Your task to perform on an android device: see tabs open on other devices in the chrome app Image 0: 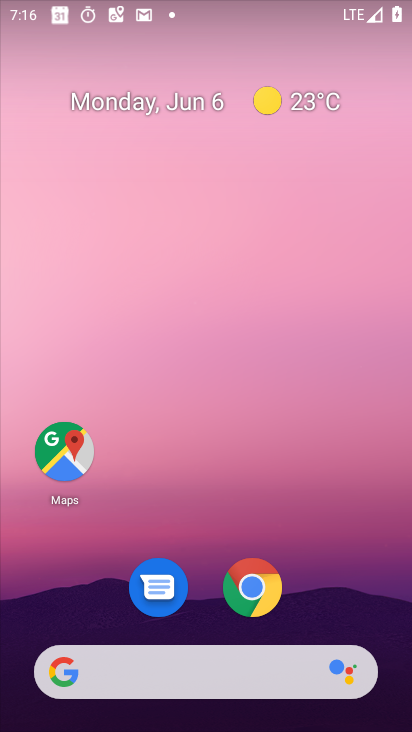
Step 0: drag from (395, 640) to (228, 45)
Your task to perform on an android device: see tabs open on other devices in the chrome app Image 1: 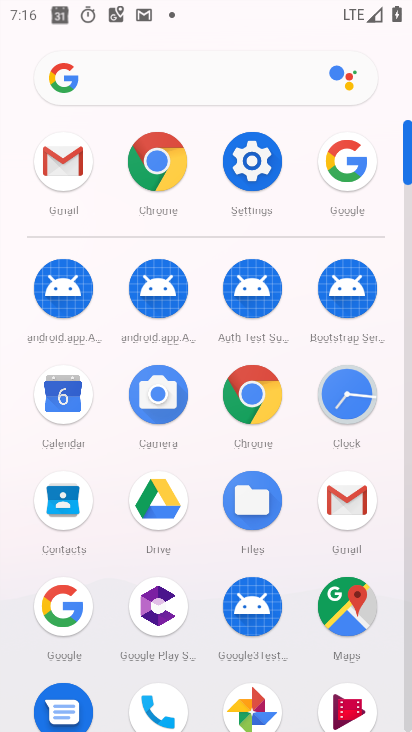
Step 1: click (154, 165)
Your task to perform on an android device: see tabs open on other devices in the chrome app Image 2: 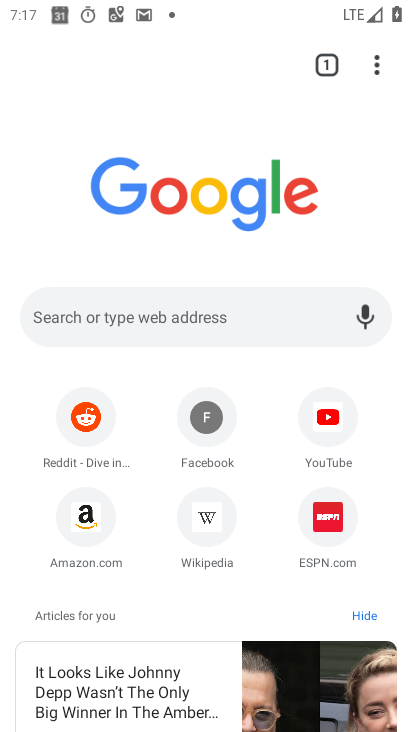
Step 2: task complete